Your task to perform on an android device: Go to ESPN.com Image 0: 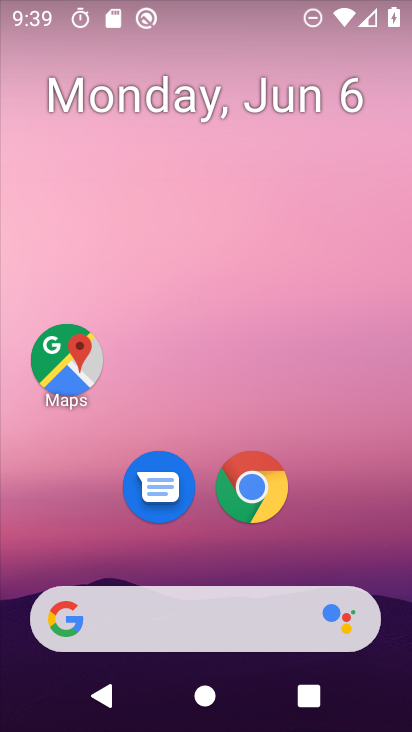
Step 0: drag from (388, 628) to (326, 101)
Your task to perform on an android device: Go to ESPN.com Image 1: 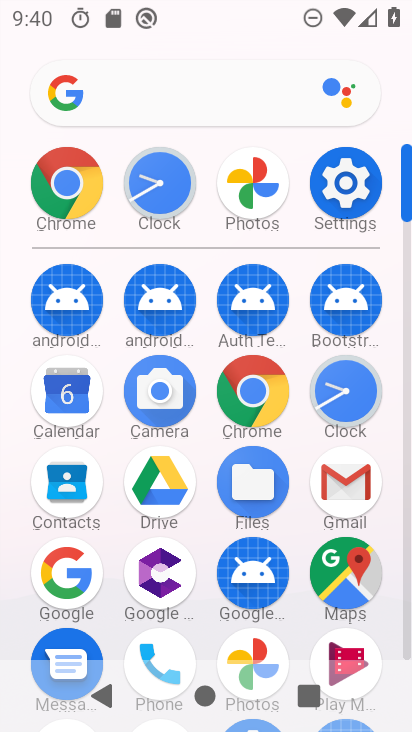
Step 1: click (60, 572)
Your task to perform on an android device: Go to ESPN.com Image 2: 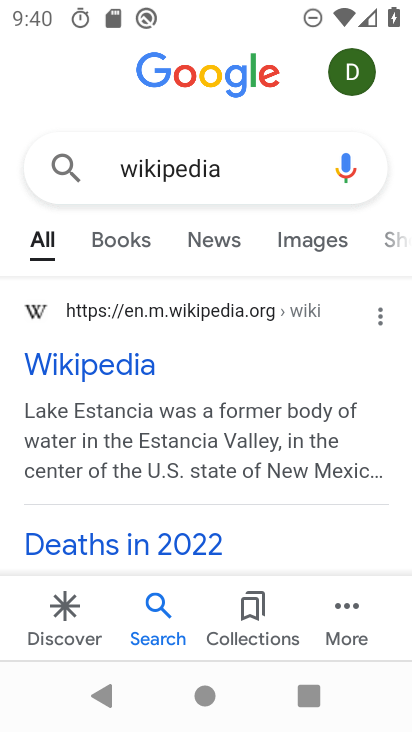
Step 2: press back button
Your task to perform on an android device: Go to ESPN.com Image 3: 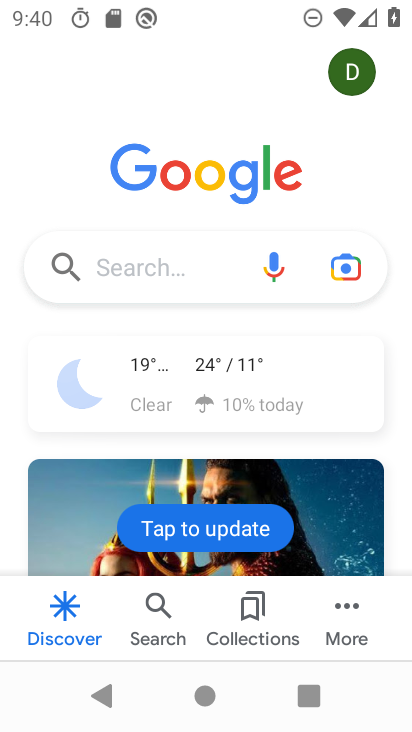
Step 3: click (124, 255)
Your task to perform on an android device: Go to ESPN.com Image 4: 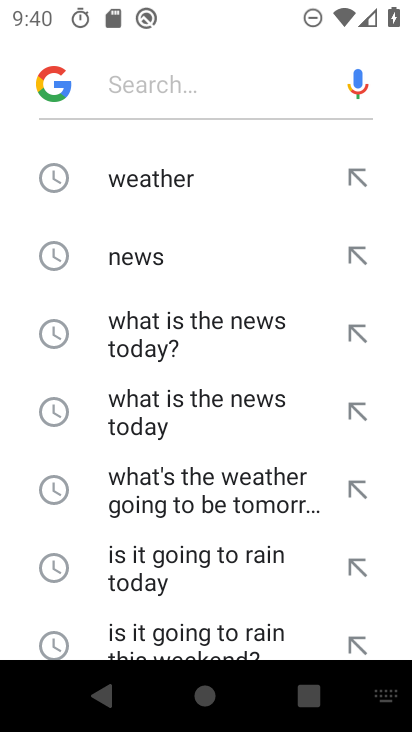
Step 4: drag from (173, 520) to (155, 90)
Your task to perform on an android device: Go to ESPN.com Image 5: 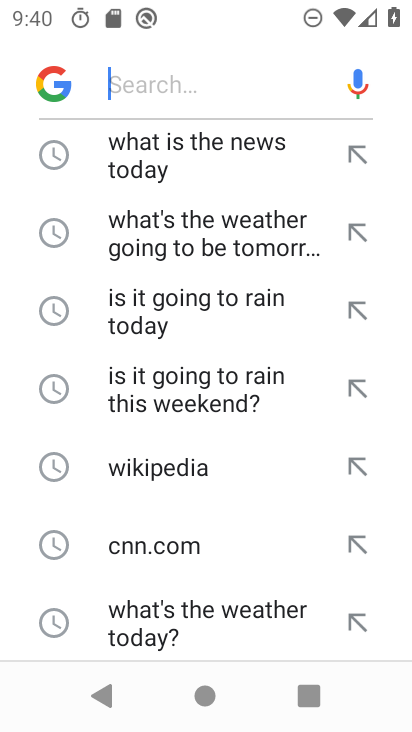
Step 5: drag from (127, 583) to (152, 108)
Your task to perform on an android device: Go to ESPN.com Image 6: 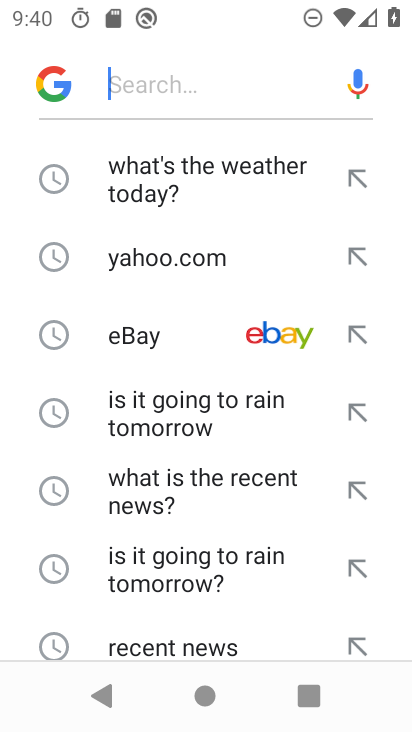
Step 6: drag from (145, 606) to (168, 202)
Your task to perform on an android device: Go to ESPN.com Image 7: 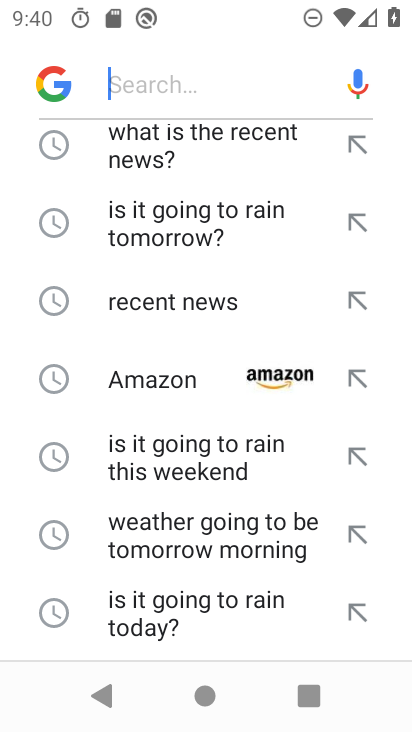
Step 7: drag from (143, 565) to (158, 140)
Your task to perform on an android device: Go to ESPN.com Image 8: 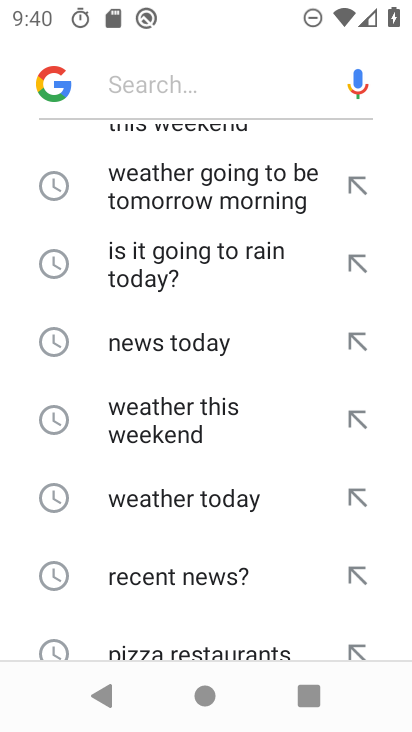
Step 8: drag from (180, 579) to (168, 154)
Your task to perform on an android device: Go to ESPN.com Image 9: 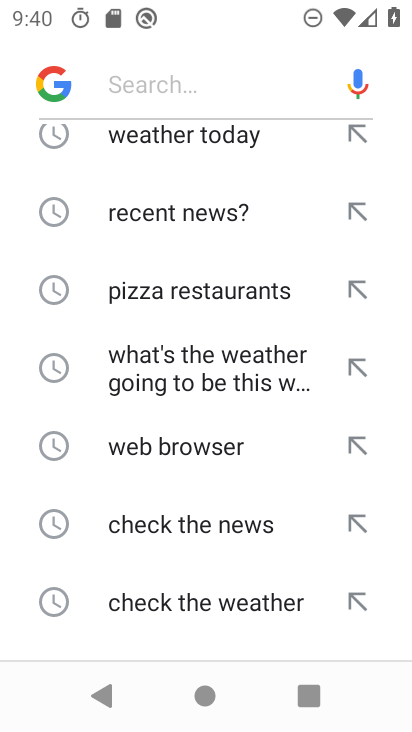
Step 9: drag from (168, 586) to (164, 209)
Your task to perform on an android device: Go to ESPN.com Image 10: 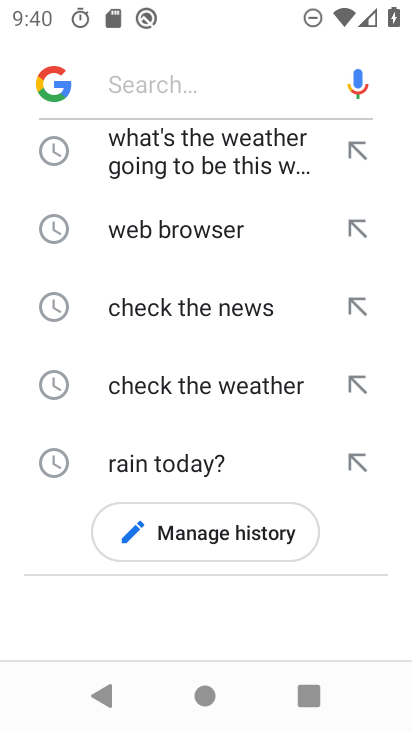
Step 10: type "espn.com"
Your task to perform on an android device: Go to ESPN.com Image 11: 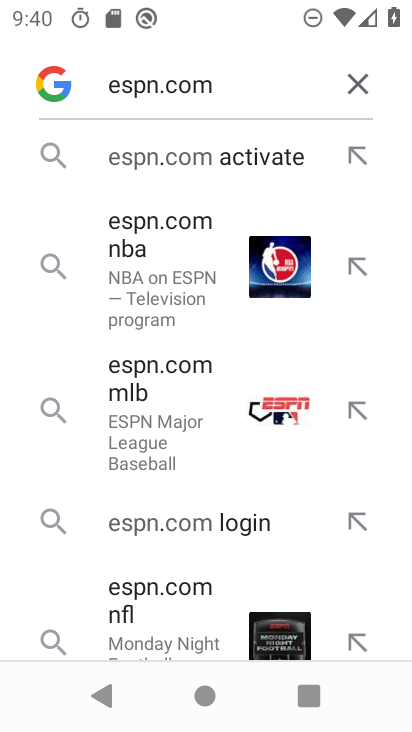
Step 11: click (168, 151)
Your task to perform on an android device: Go to ESPN.com Image 12: 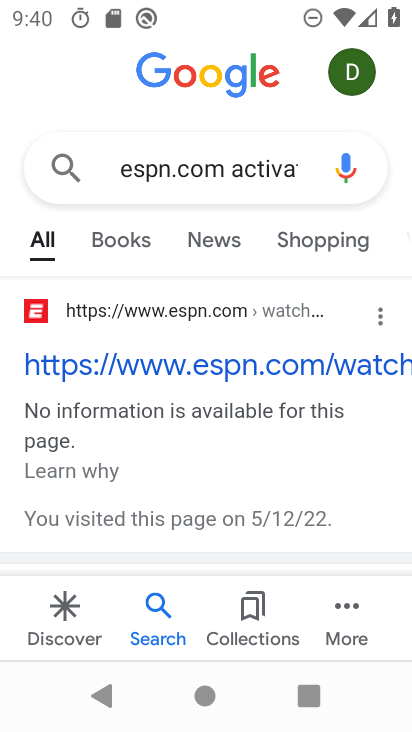
Step 12: task complete